Your task to perform on an android device: Open notification settings Image 0: 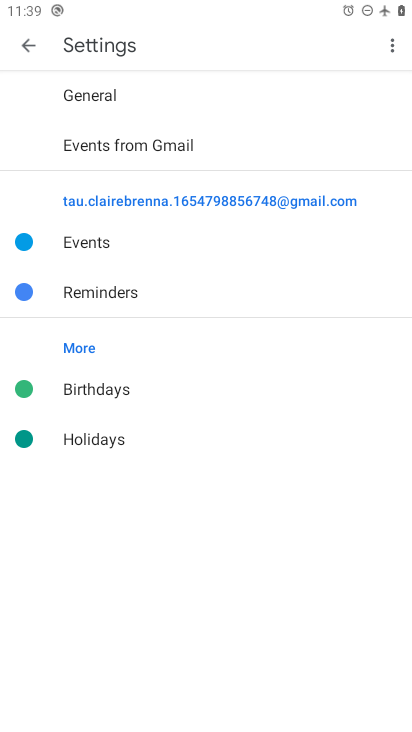
Step 0: press home button
Your task to perform on an android device: Open notification settings Image 1: 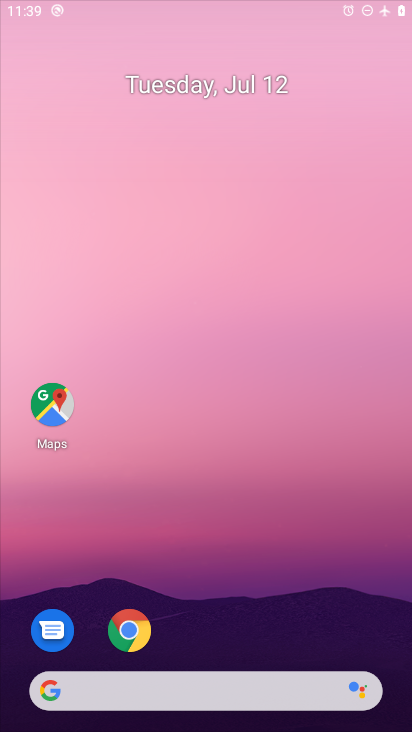
Step 1: drag from (313, 591) to (287, 49)
Your task to perform on an android device: Open notification settings Image 2: 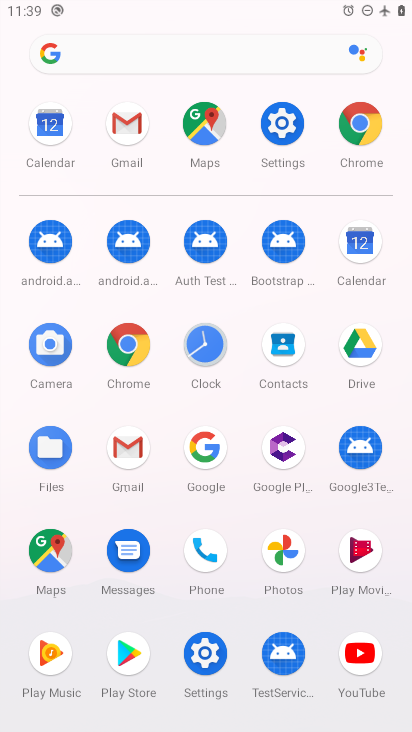
Step 2: click (277, 121)
Your task to perform on an android device: Open notification settings Image 3: 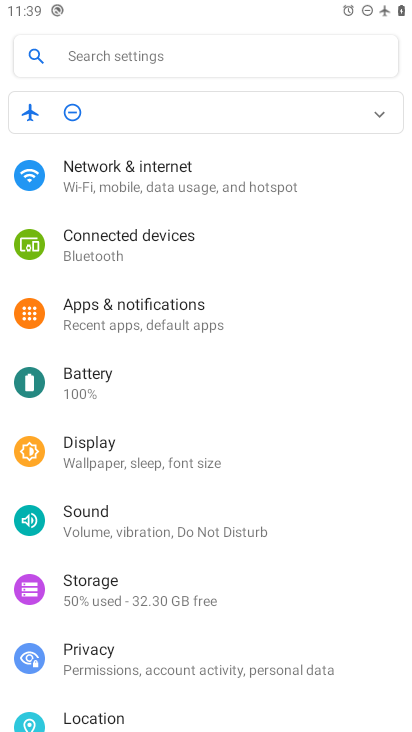
Step 3: click (139, 317)
Your task to perform on an android device: Open notification settings Image 4: 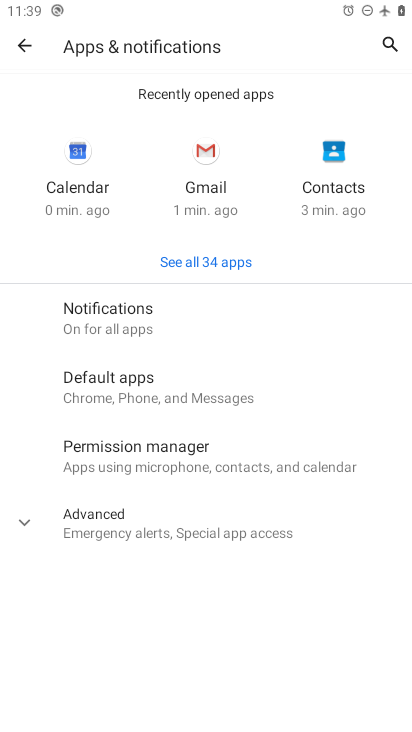
Step 4: click (111, 316)
Your task to perform on an android device: Open notification settings Image 5: 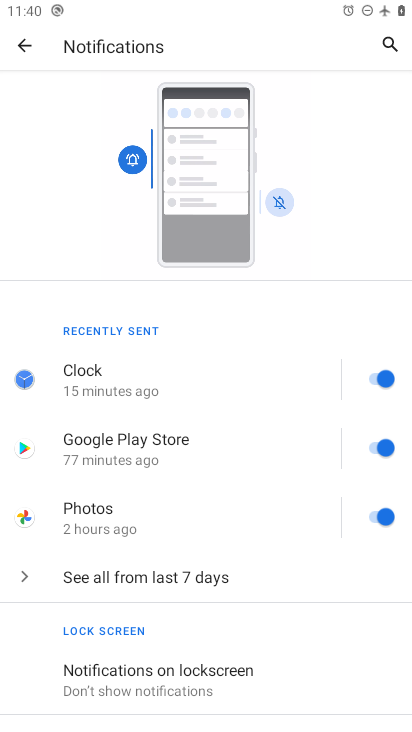
Step 5: task complete